Your task to perform on an android device: set default search engine in the chrome app Image 0: 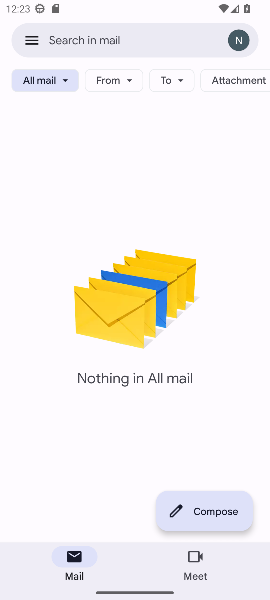
Step 0: press home button
Your task to perform on an android device: set default search engine in the chrome app Image 1: 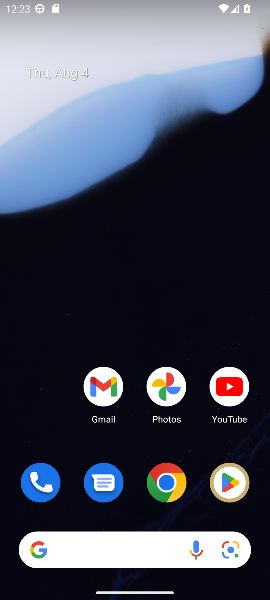
Step 1: click (173, 481)
Your task to perform on an android device: set default search engine in the chrome app Image 2: 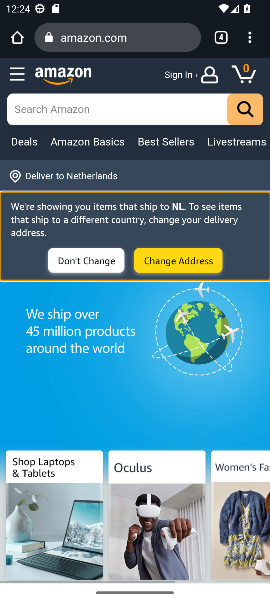
Step 2: click (249, 40)
Your task to perform on an android device: set default search engine in the chrome app Image 3: 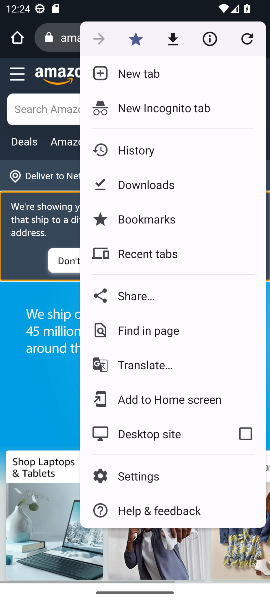
Step 3: click (144, 475)
Your task to perform on an android device: set default search engine in the chrome app Image 4: 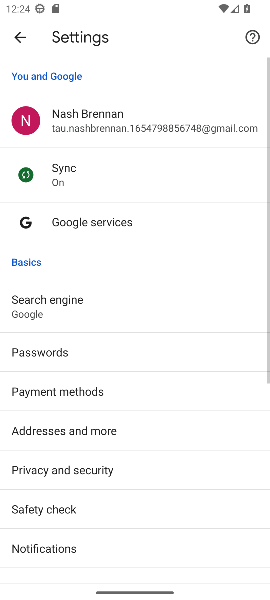
Step 4: click (160, 454)
Your task to perform on an android device: set default search engine in the chrome app Image 5: 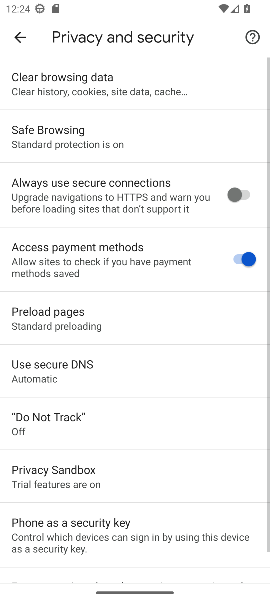
Step 5: click (21, 45)
Your task to perform on an android device: set default search engine in the chrome app Image 6: 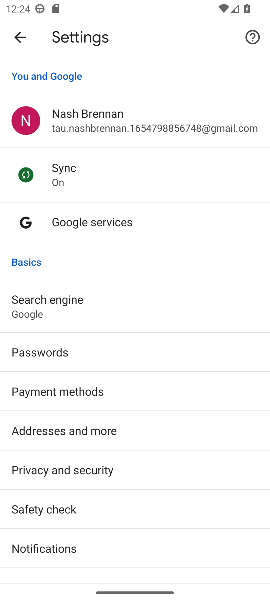
Step 6: click (85, 308)
Your task to perform on an android device: set default search engine in the chrome app Image 7: 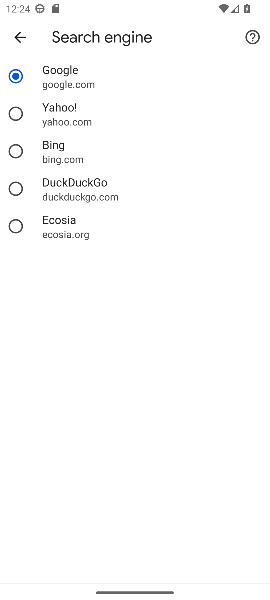
Step 7: task complete